Your task to perform on an android device: turn off sleep mode Image 0: 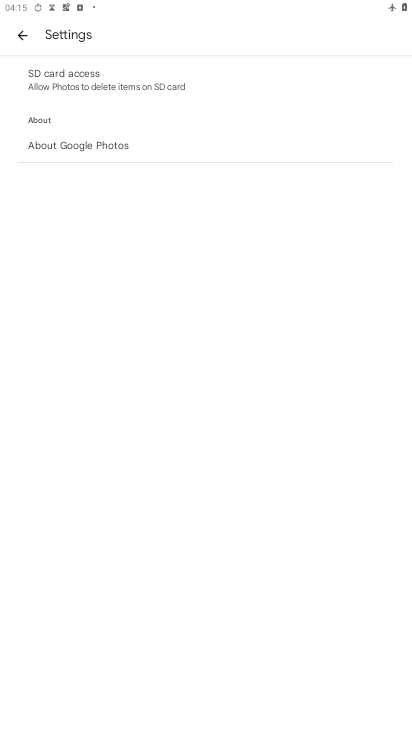
Step 0: press home button
Your task to perform on an android device: turn off sleep mode Image 1: 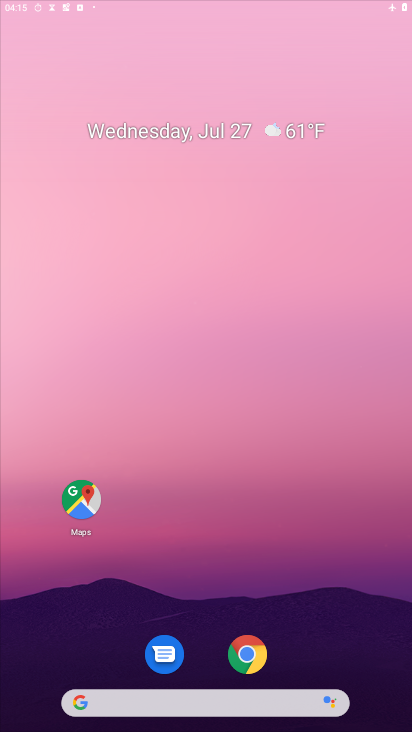
Step 1: drag from (207, 699) to (348, 35)
Your task to perform on an android device: turn off sleep mode Image 2: 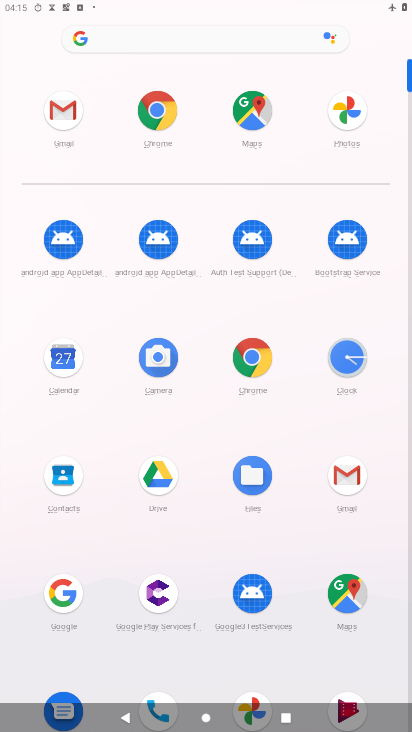
Step 2: drag from (212, 603) to (285, 135)
Your task to perform on an android device: turn off sleep mode Image 3: 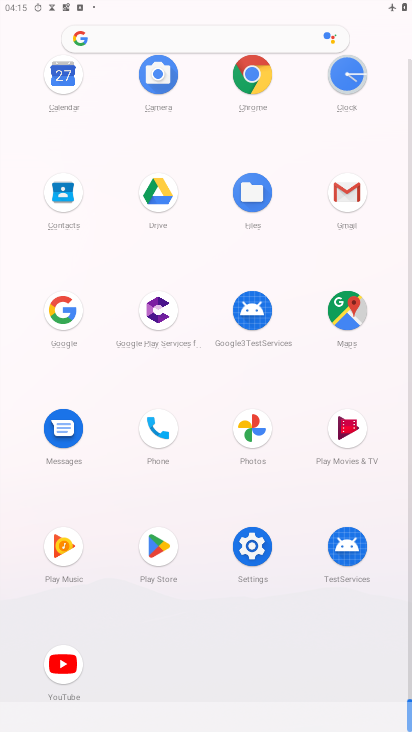
Step 3: click (241, 558)
Your task to perform on an android device: turn off sleep mode Image 4: 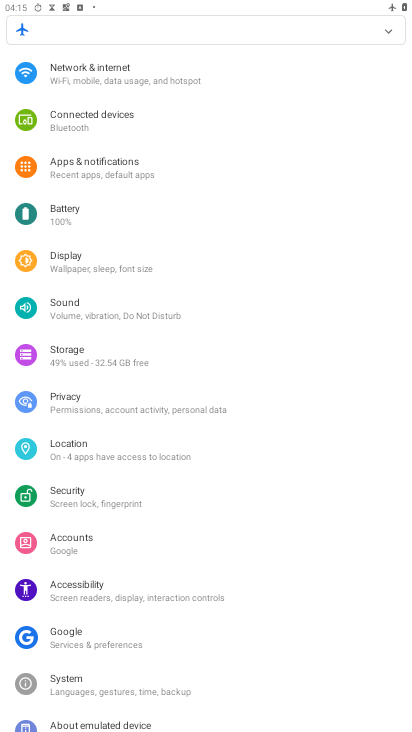
Step 4: click (126, 268)
Your task to perform on an android device: turn off sleep mode Image 5: 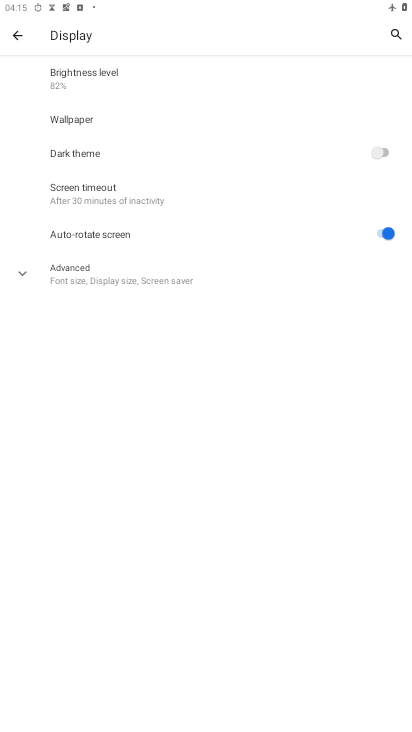
Step 5: task complete